Your task to perform on an android device: turn off notifications in google photos Image 0: 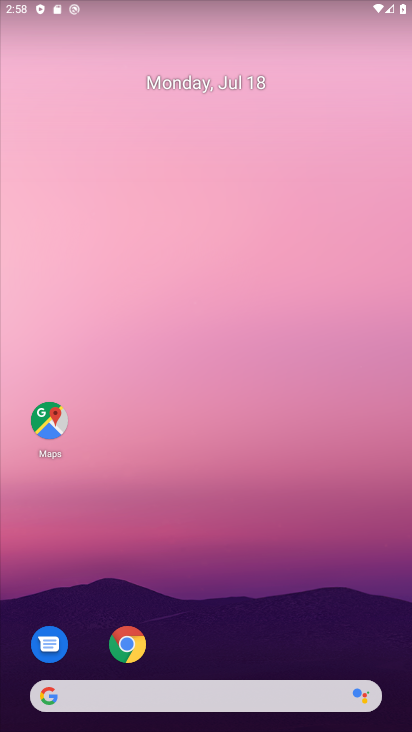
Step 0: press home button
Your task to perform on an android device: turn off notifications in google photos Image 1: 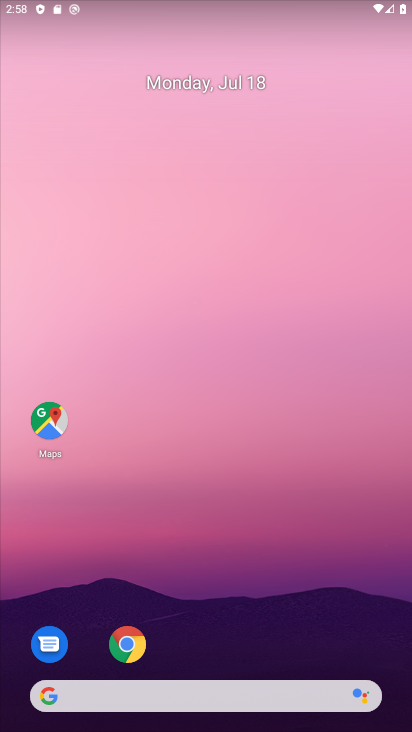
Step 1: drag from (260, 600) to (266, 173)
Your task to perform on an android device: turn off notifications in google photos Image 2: 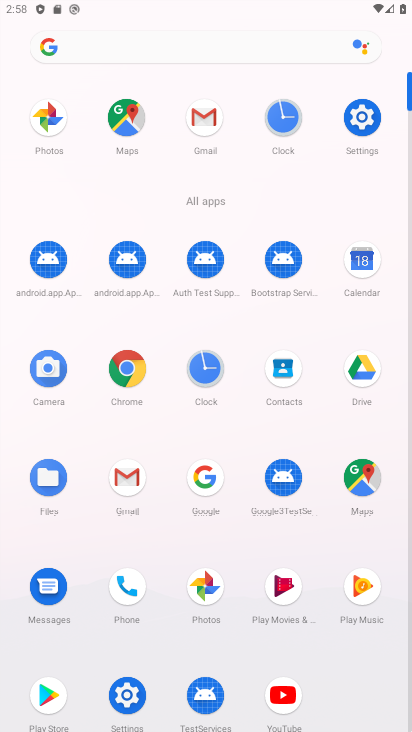
Step 2: click (200, 584)
Your task to perform on an android device: turn off notifications in google photos Image 3: 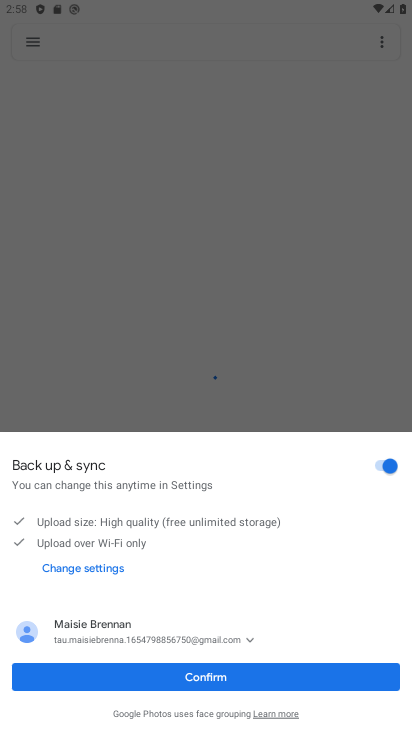
Step 3: click (216, 691)
Your task to perform on an android device: turn off notifications in google photos Image 4: 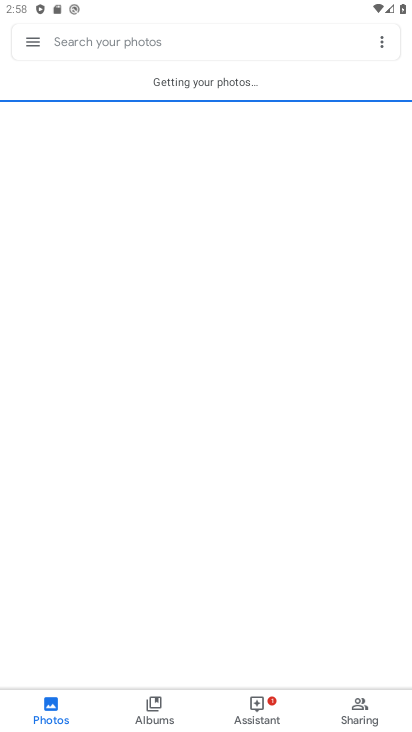
Step 4: click (38, 45)
Your task to perform on an android device: turn off notifications in google photos Image 5: 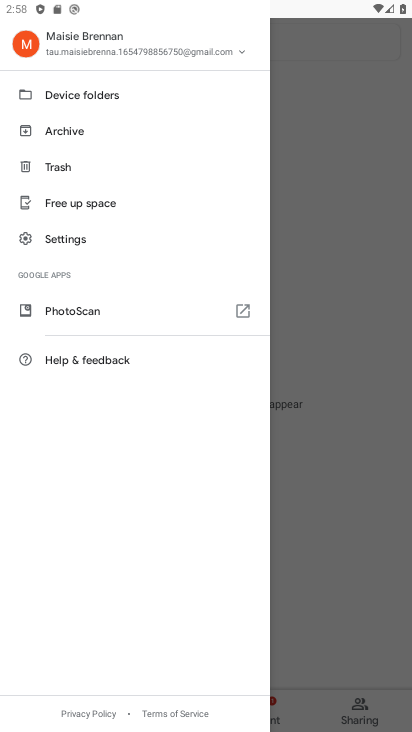
Step 5: click (63, 237)
Your task to perform on an android device: turn off notifications in google photos Image 6: 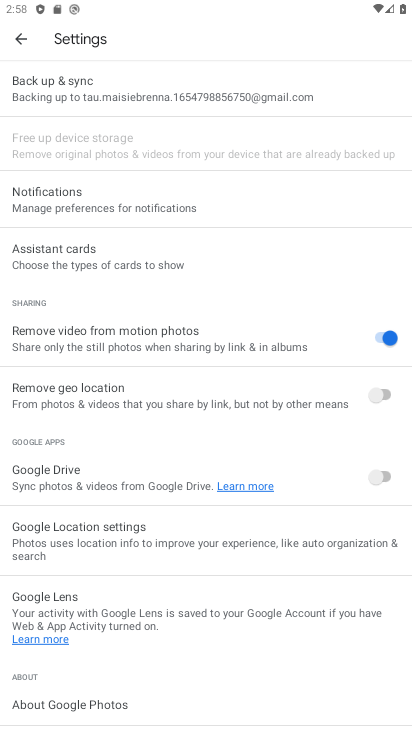
Step 6: click (60, 197)
Your task to perform on an android device: turn off notifications in google photos Image 7: 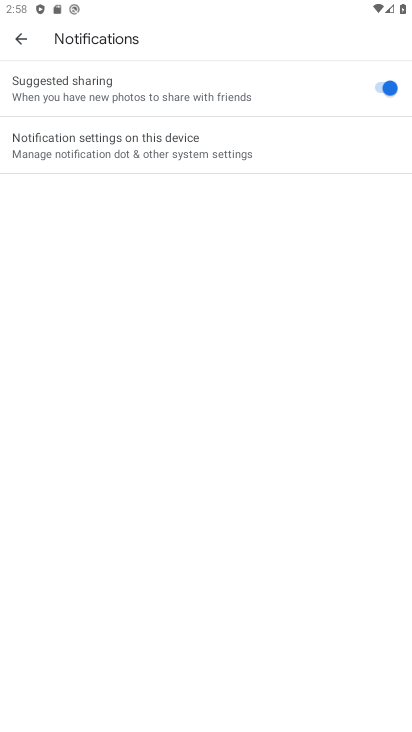
Step 7: click (390, 88)
Your task to perform on an android device: turn off notifications in google photos Image 8: 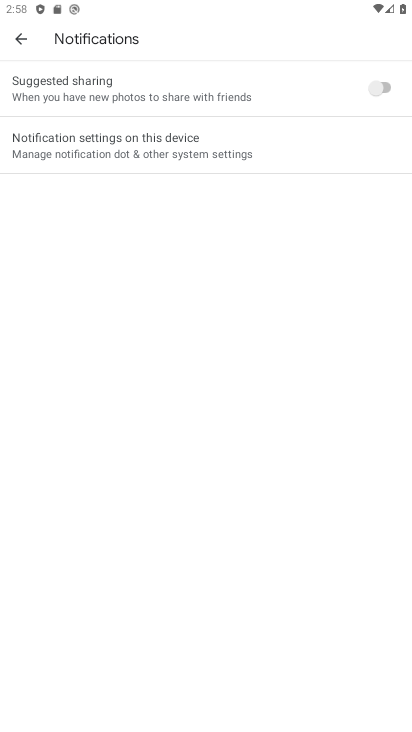
Step 8: task complete